Your task to perform on an android device: find snoozed emails in the gmail app Image 0: 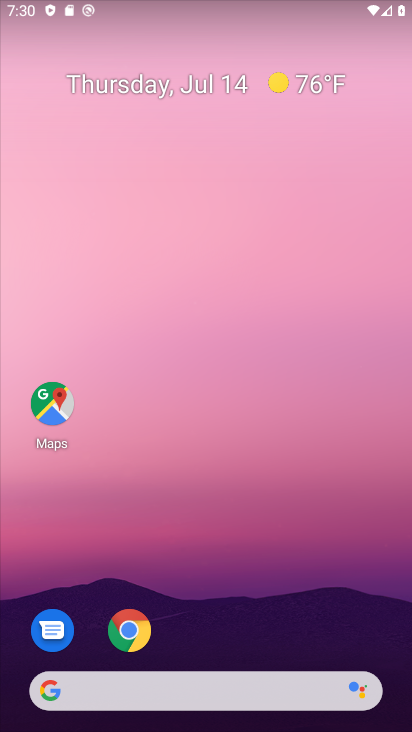
Step 0: drag from (278, 662) to (232, 120)
Your task to perform on an android device: find snoozed emails in the gmail app Image 1: 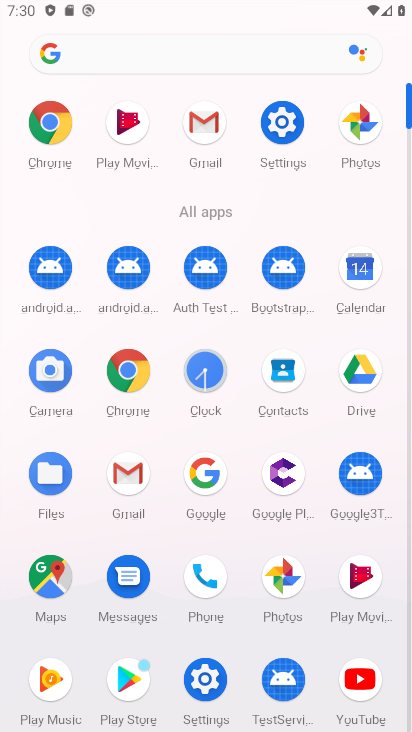
Step 1: click (205, 119)
Your task to perform on an android device: find snoozed emails in the gmail app Image 2: 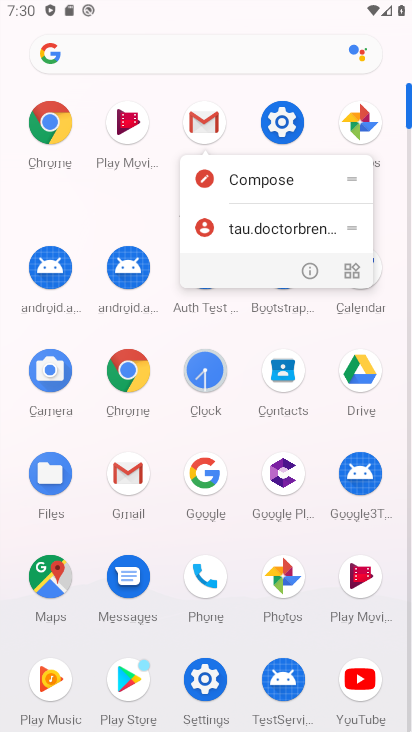
Step 2: click (210, 109)
Your task to perform on an android device: find snoozed emails in the gmail app Image 3: 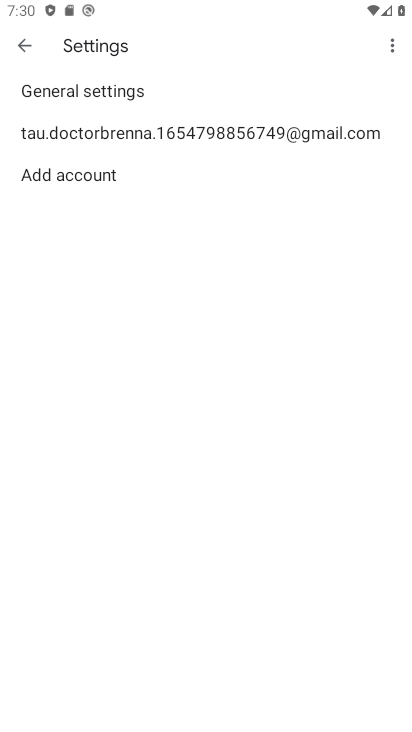
Step 3: click (22, 44)
Your task to perform on an android device: find snoozed emails in the gmail app Image 4: 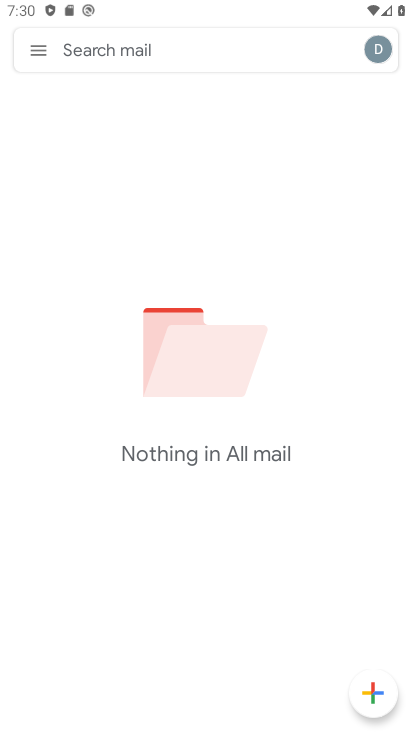
Step 4: click (40, 38)
Your task to perform on an android device: find snoozed emails in the gmail app Image 5: 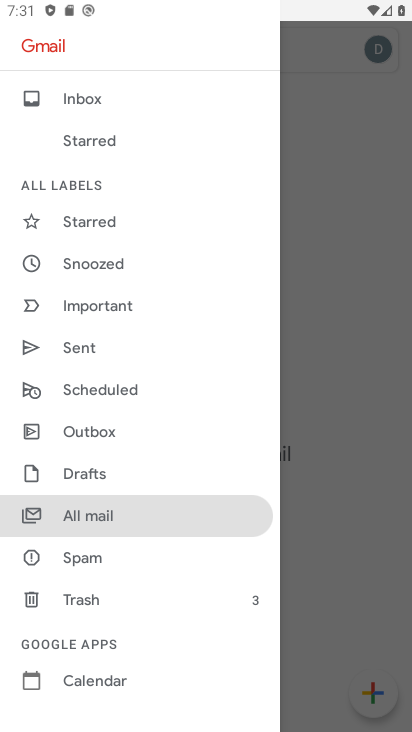
Step 5: click (105, 269)
Your task to perform on an android device: find snoozed emails in the gmail app Image 6: 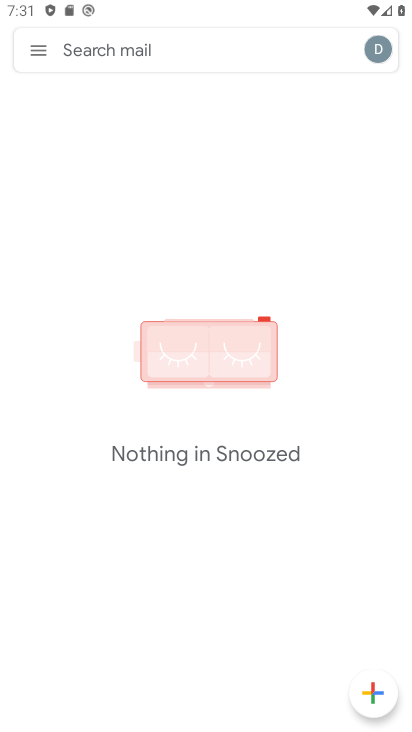
Step 6: task complete